Your task to perform on an android device: Clear the cart on walmart.com. Add macbook to the cart on walmart.com Image 0: 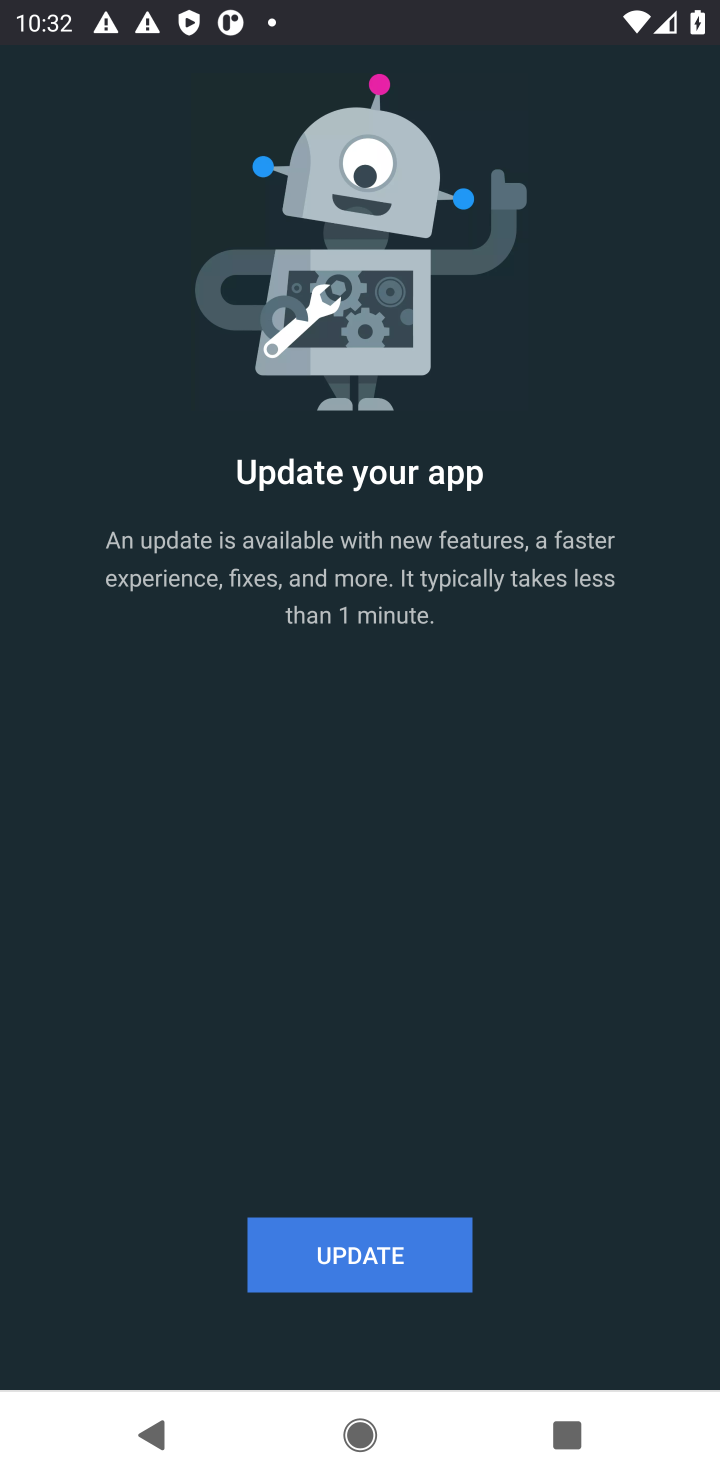
Step 0: task complete